Your task to perform on an android device: Go to Google maps Image 0: 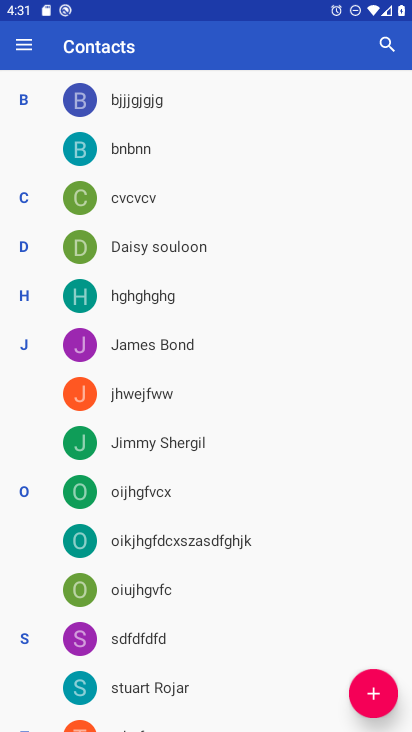
Step 0: press home button
Your task to perform on an android device: Go to Google maps Image 1: 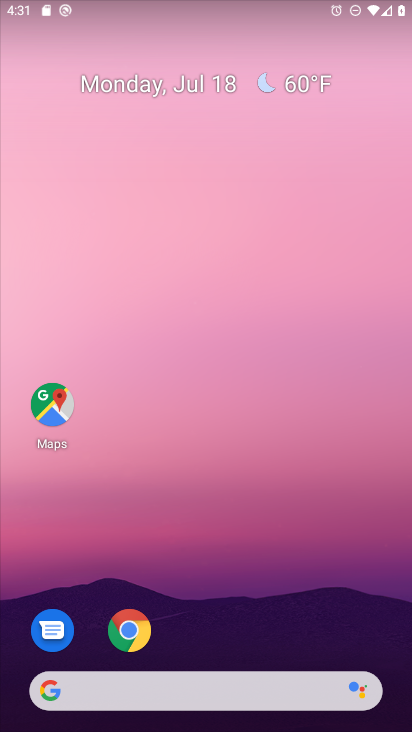
Step 1: click (50, 399)
Your task to perform on an android device: Go to Google maps Image 2: 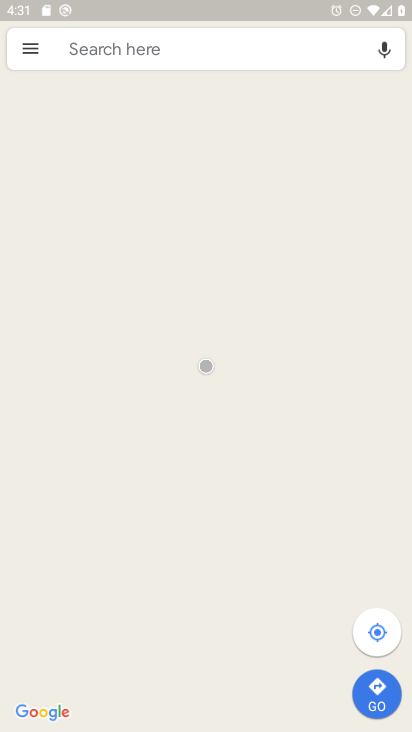
Step 2: task complete